Your task to perform on an android device: turn on wifi Image 0: 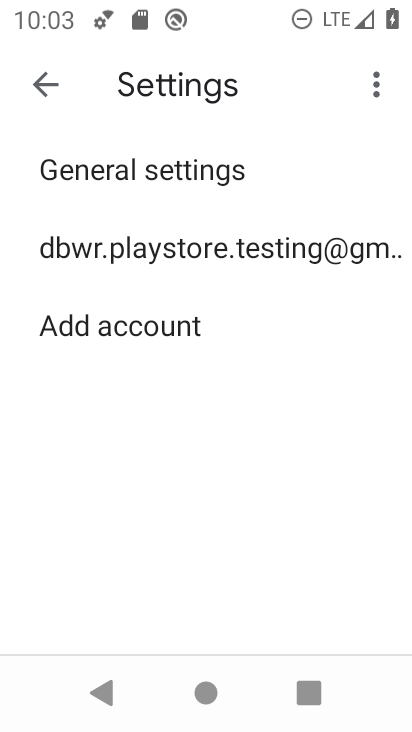
Step 0: press home button
Your task to perform on an android device: turn on wifi Image 1: 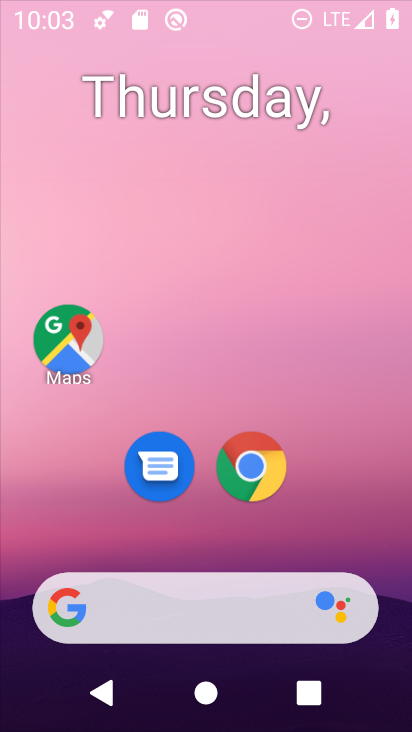
Step 1: drag from (253, 538) to (285, 30)
Your task to perform on an android device: turn on wifi Image 2: 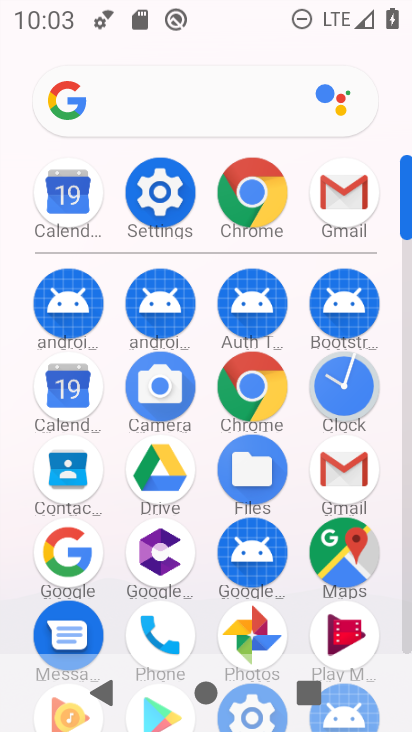
Step 2: click (166, 191)
Your task to perform on an android device: turn on wifi Image 3: 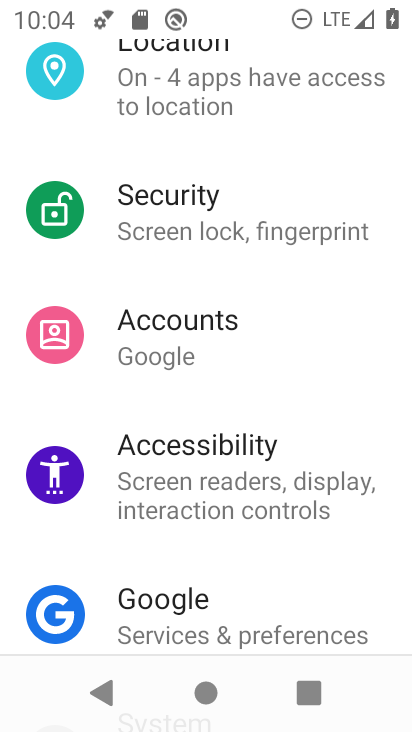
Step 3: drag from (240, 156) to (326, 624)
Your task to perform on an android device: turn on wifi Image 4: 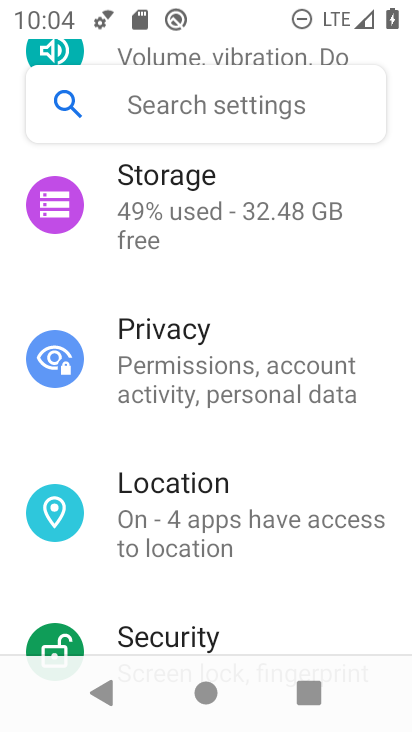
Step 4: drag from (271, 198) to (332, 674)
Your task to perform on an android device: turn on wifi Image 5: 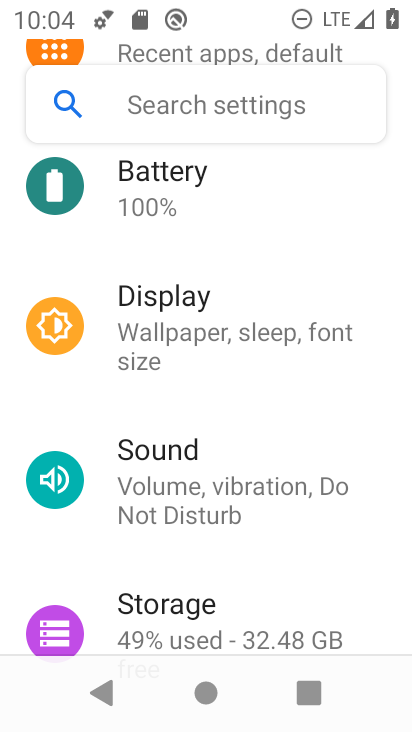
Step 5: drag from (257, 258) to (298, 665)
Your task to perform on an android device: turn on wifi Image 6: 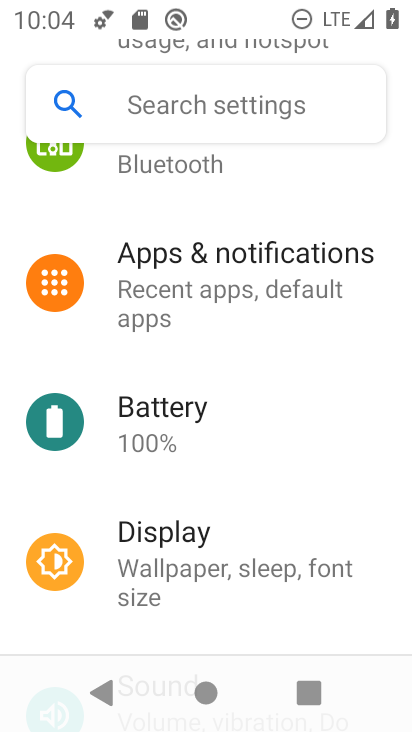
Step 6: drag from (260, 272) to (259, 665)
Your task to perform on an android device: turn on wifi Image 7: 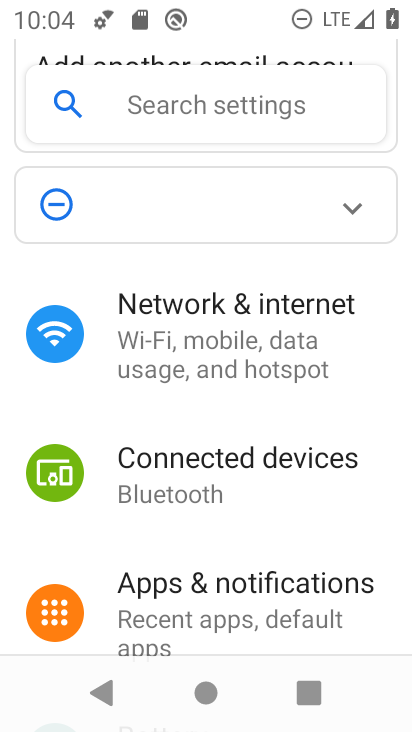
Step 7: click (237, 332)
Your task to perform on an android device: turn on wifi Image 8: 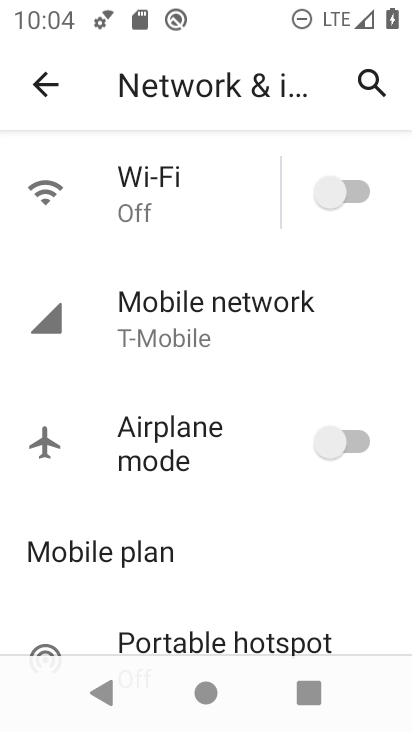
Step 8: click (341, 189)
Your task to perform on an android device: turn on wifi Image 9: 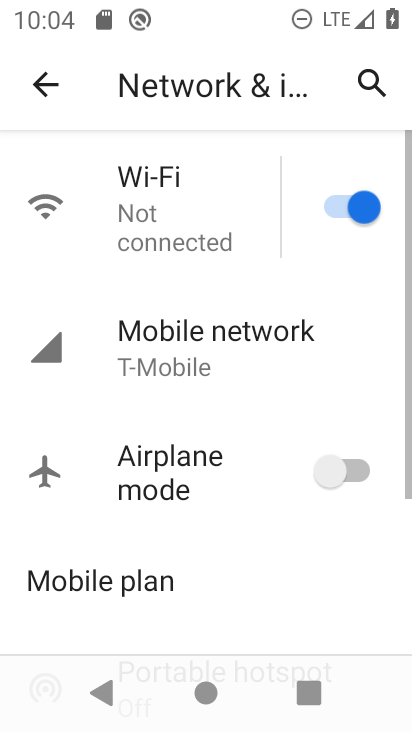
Step 9: task complete